Your task to perform on an android device: Open Maps and search for coffee Image 0: 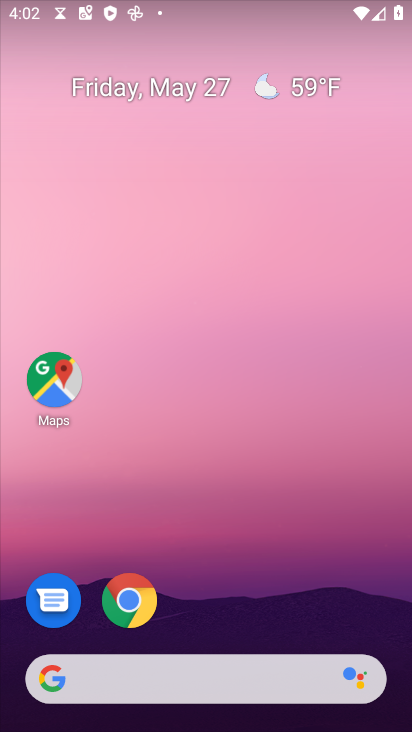
Step 0: click (53, 378)
Your task to perform on an android device: Open Maps and search for coffee Image 1: 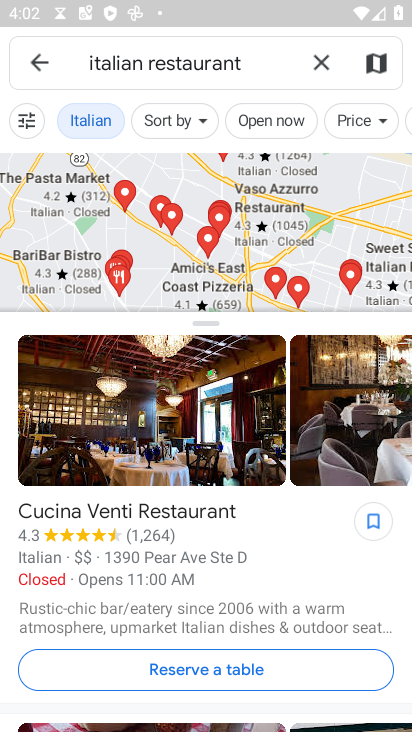
Step 1: click (318, 63)
Your task to perform on an android device: Open Maps and search for coffee Image 2: 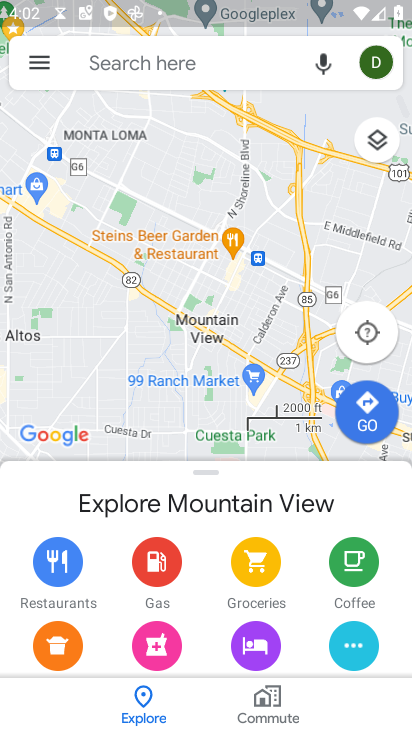
Step 2: click (241, 57)
Your task to perform on an android device: Open Maps and search for coffee Image 3: 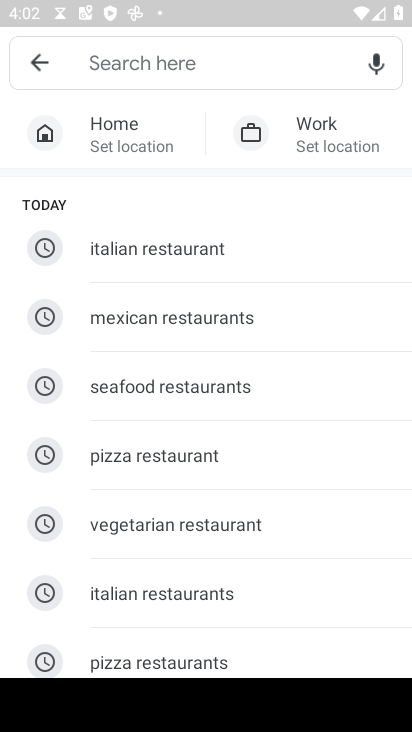
Step 3: type "coffee"
Your task to perform on an android device: Open Maps and search for coffee Image 4: 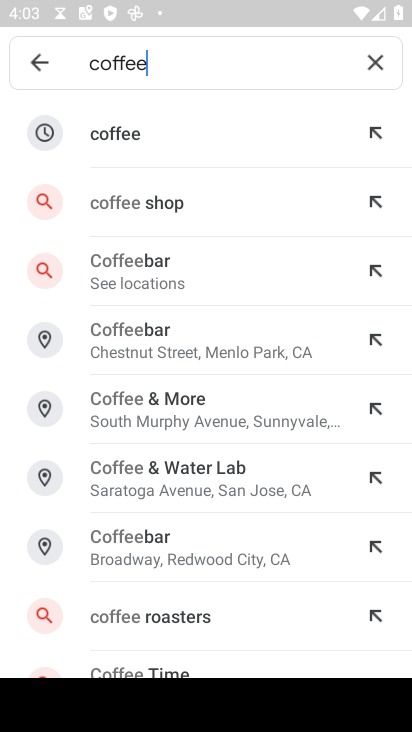
Step 4: click (139, 137)
Your task to perform on an android device: Open Maps and search for coffee Image 5: 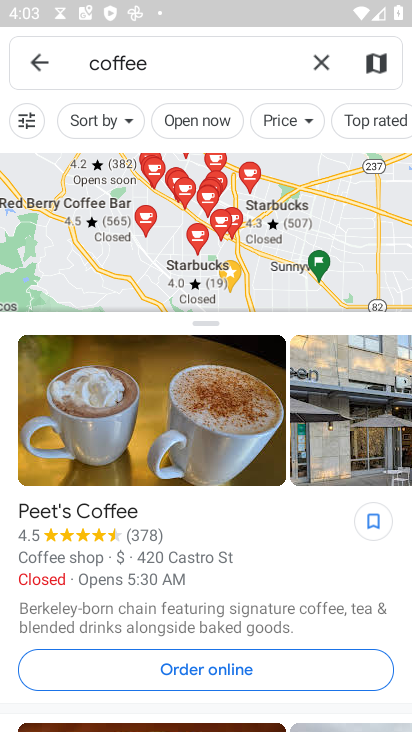
Step 5: task complete